Your task to perform on an android device: delete a single message in the gmail app Image 0: 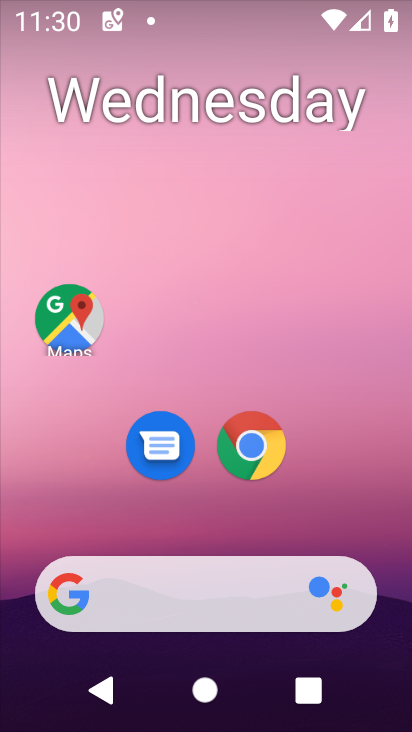
Step 0: drag from (307, 515) to (274, 62)
Your task to perform on an android device: delete a single message in the gmail app Image 1: 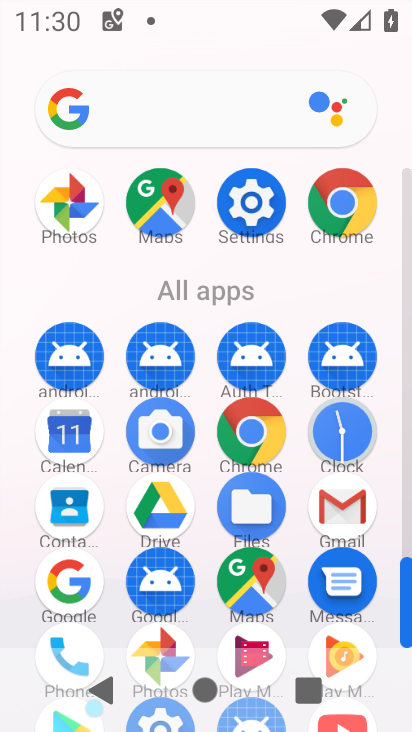
Step 1: click (357, 523)
Your task to perform on an android device: delete a single message in the gmail app Image 2: 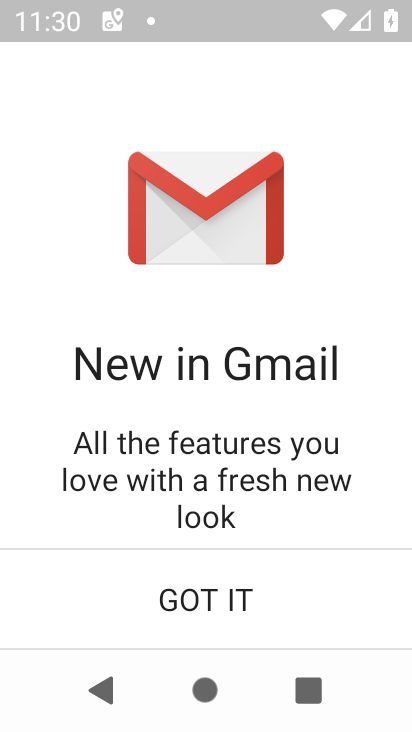
Step 2: click (187, 594)
Your task to perform on an android device: delete a single message in the gmail app Image 3: 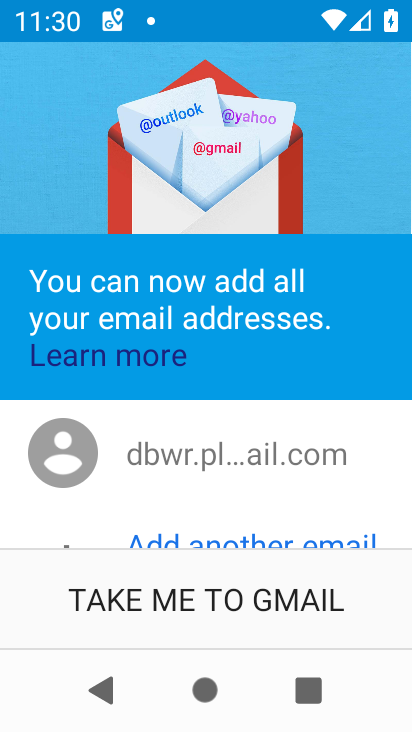
Step 3: click (188, 610)
Your task to perform on an android device: delete a single message in the gmail app Image 4: 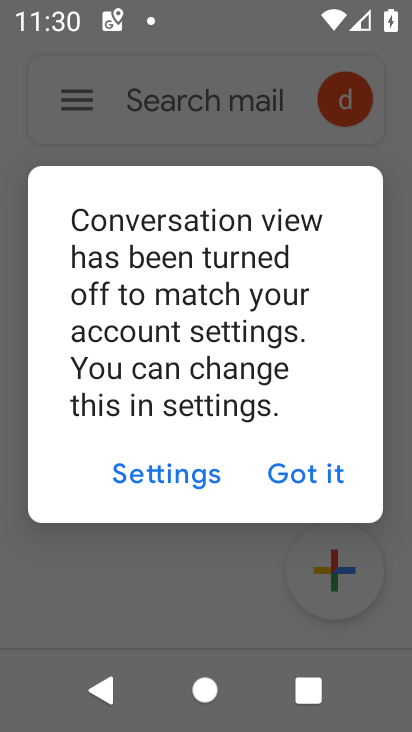
Step 4: click (305, 480)
Your task to perform on an android device: delete a single message in the gmail app Image 5: 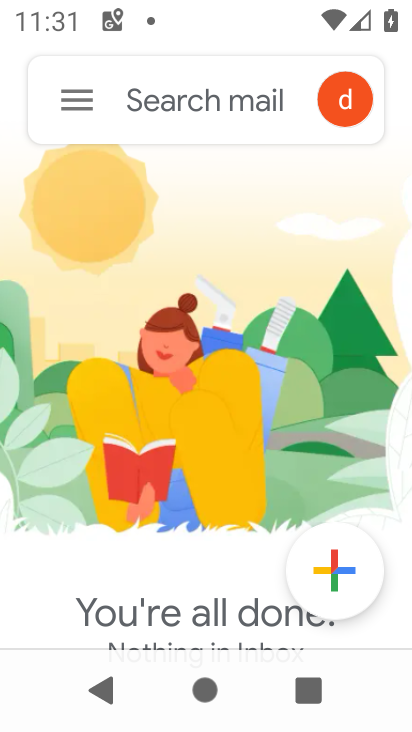
Step 5: task complete